Your task to perform on an android device: refresh tabs in the chrome app Image 0: 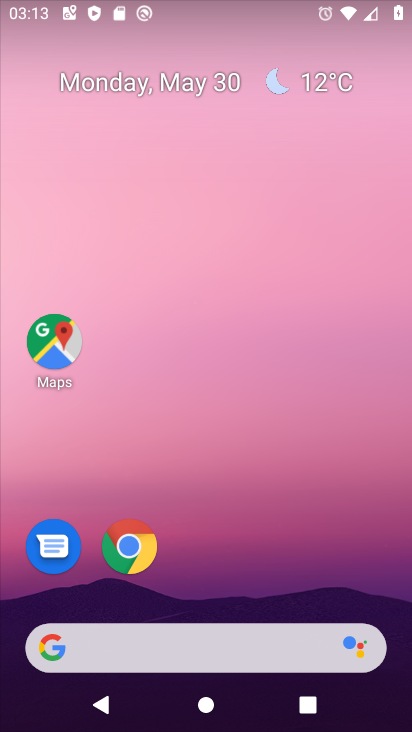
Step 0: press home button
Your task to perform on an android device: refresh tabs in the chrome app Image 1: 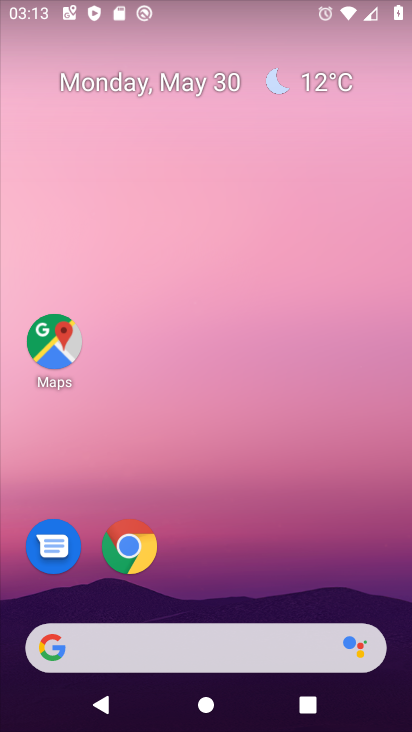
Step 1: click (123, 540)
Your task to perform on an android device: refresh tabs in the chrome app Image 2: 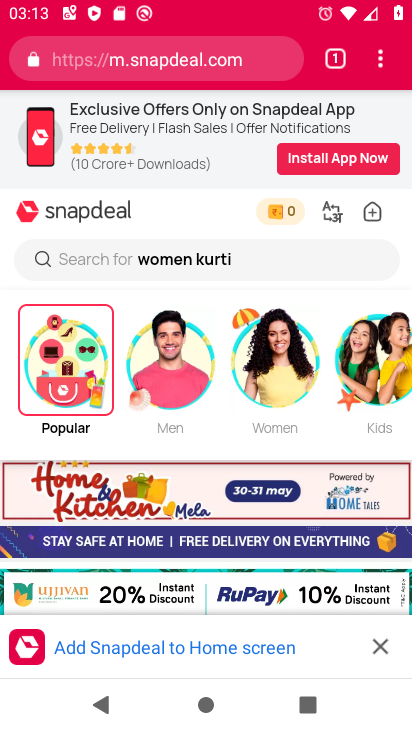
Step 2: click (387, 58)
Your task to perform on an android device: refresh tabs in the chrome app Image 3: 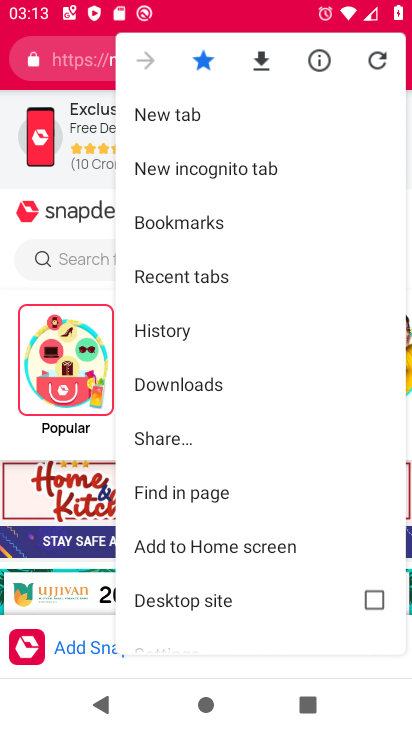
Step 3: drag from (264, 595) to (256, 91)
Your task to perform on an android device: refresh tabs in the chrome app Image 4: 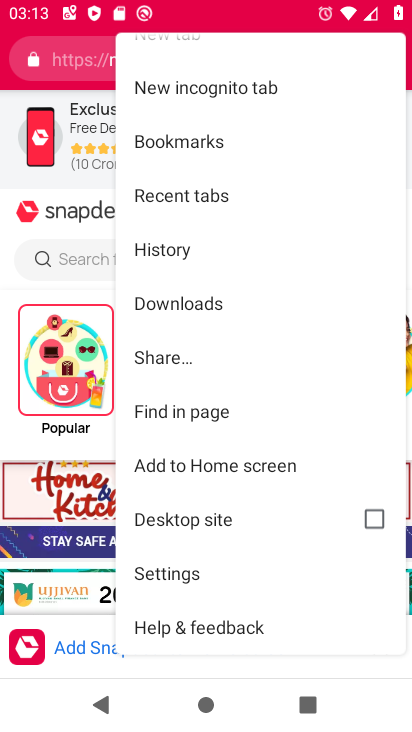
Step 4: drag from (251, 140) to (249, 605)
Your task to perform on an android device: refresh tabs in the chrome app Image 5: 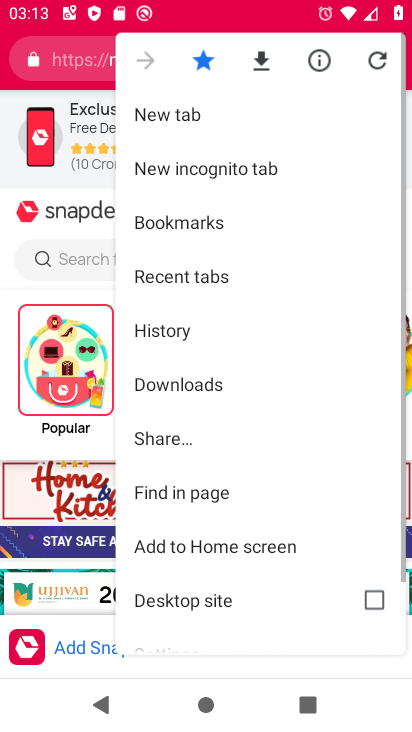
Step 5: click (380, 62)
Your task to perform on an android device: refresh tabs in the chrome app Image 6: 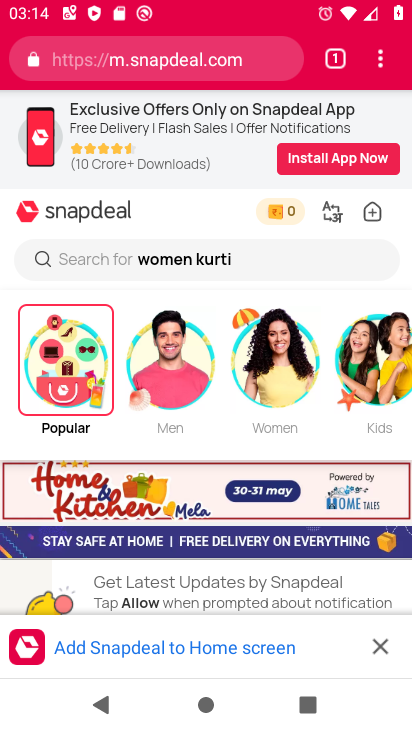
Step 6: task complete